Your task to perform on an android device: Open Google Chrome Image 0: 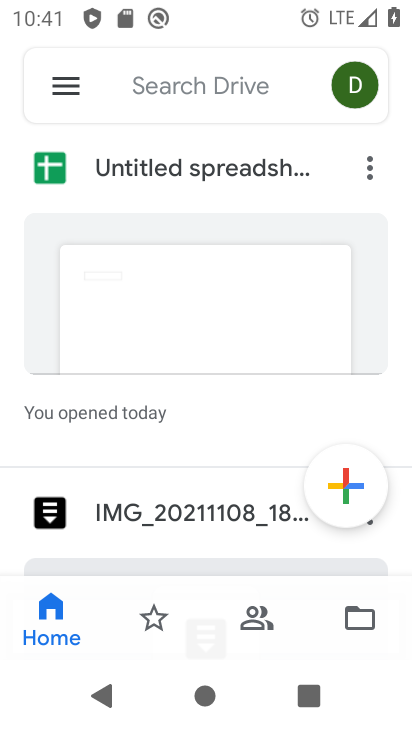
Step 0: press home button
Your task to perform on an android device: Open Google Chrome Image 1: 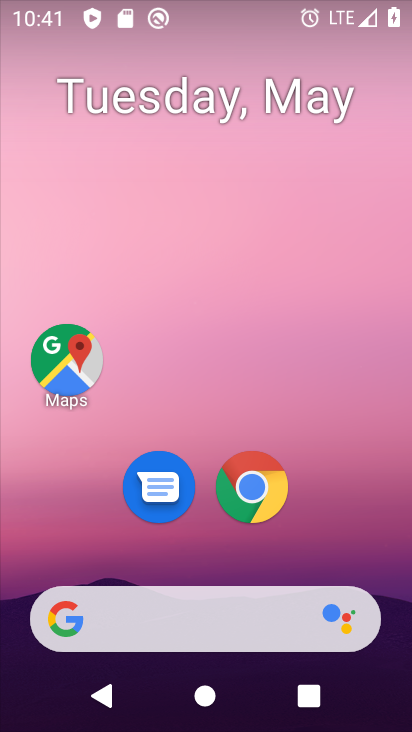
Step 1: click (245, 499)
Your task to perform on an android device: Open Google Chrome Image 2: 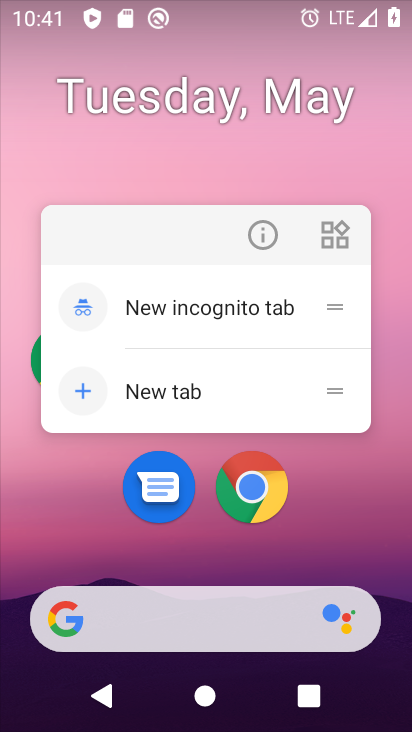
Step 2: click (270, 245)
Your task to perform on an android device: Open Google Chrome Image 3: 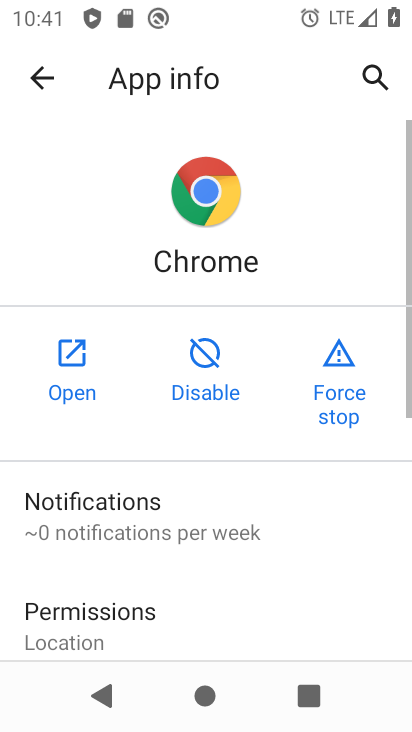
Step 3: click (85, 354)
Your task to perform on an android device: Open Google Chrome Image 4: 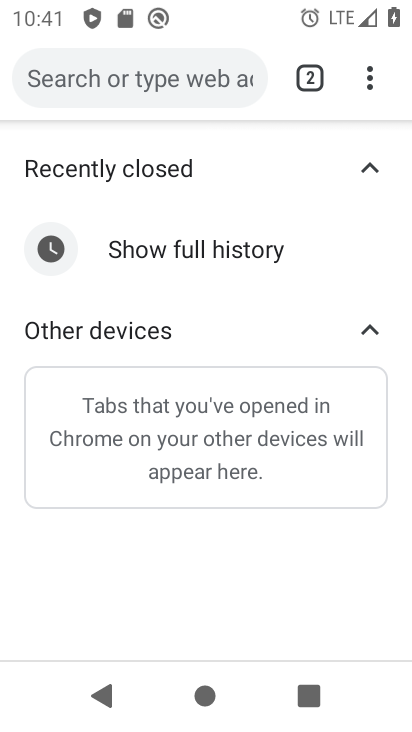
Step 4: task complete